Your task to perform on an android device: open app "Airtel Thanks" (install if not already installed) Image 0: 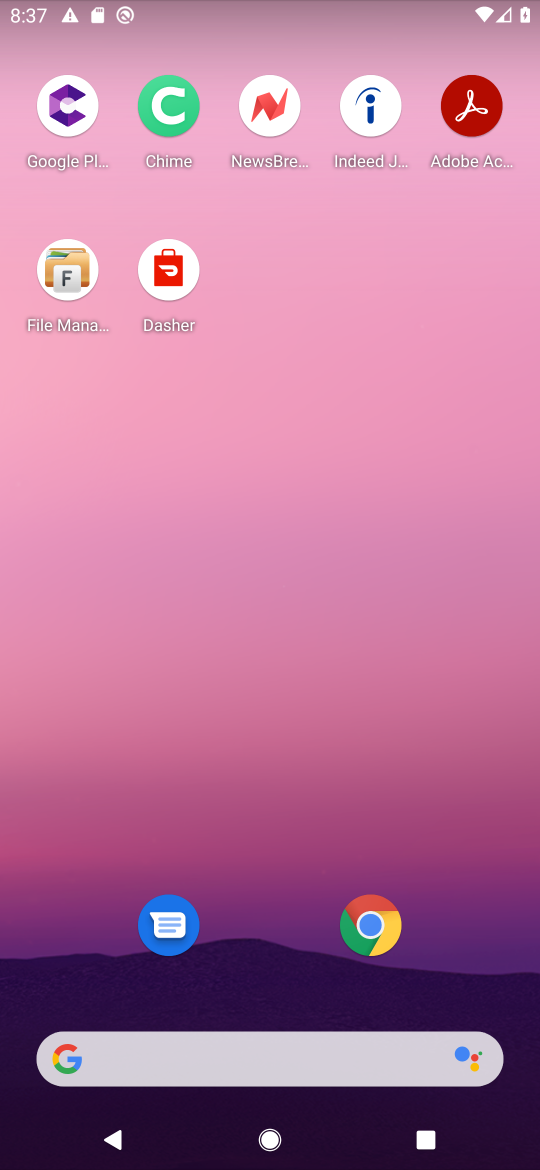
Step 0: drag from (260, 985) to (260, 192)
Your task to perform on an android device: open app "Airtel Thanks" (install if not already installed) Image 1: 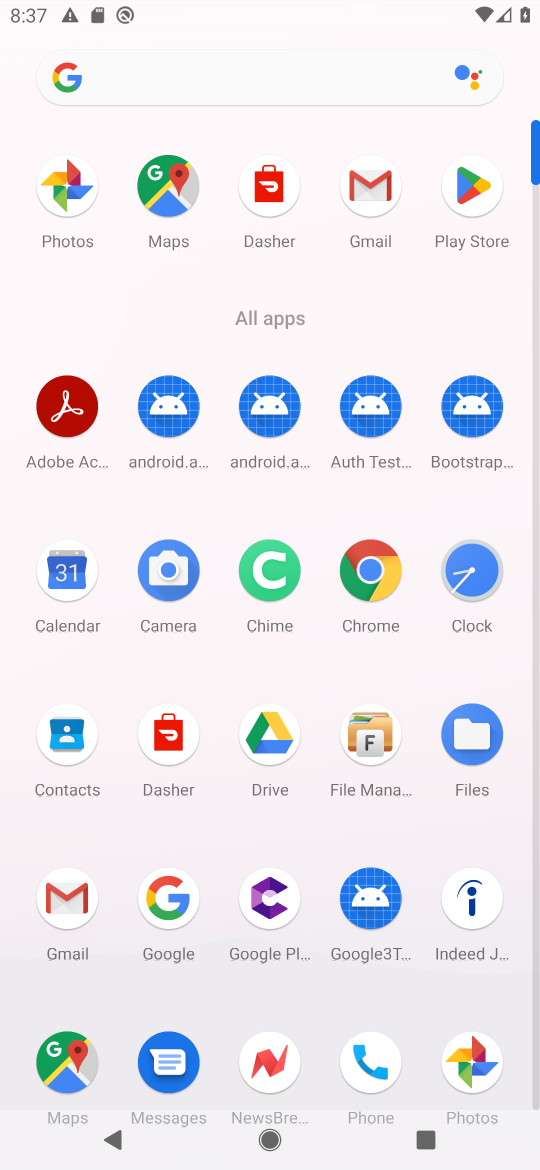
Step 1: click (478, 176)
Your task to perform on an android device: open app "Airtel Thanks" (install if not already installed) Image 2: 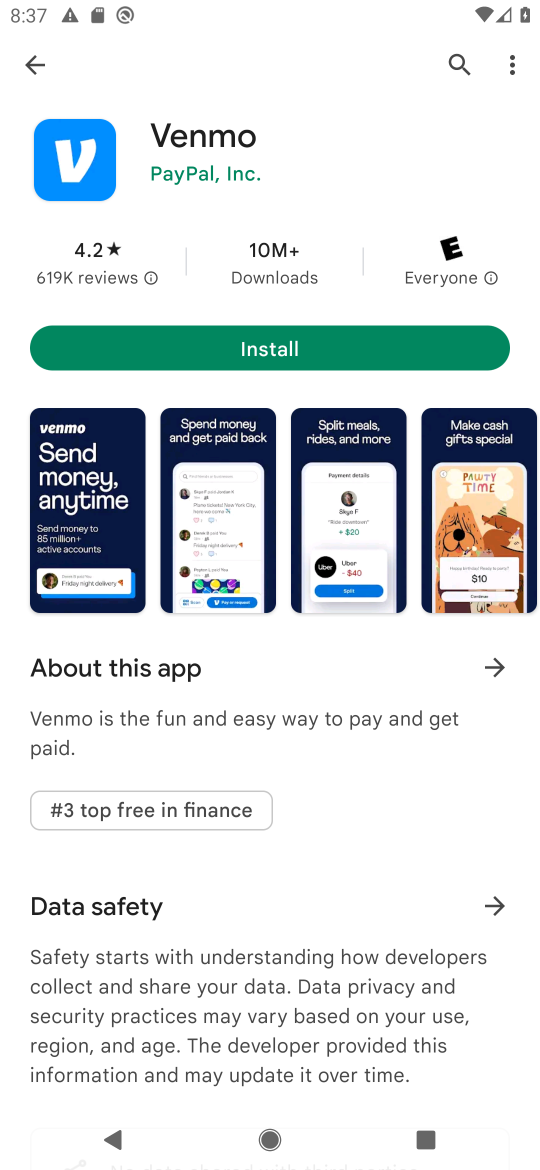
Step 2: click (456, 52)
Your task to perform on an android device: open app "Airtel Thanks" (install if not already installed) Image 3: 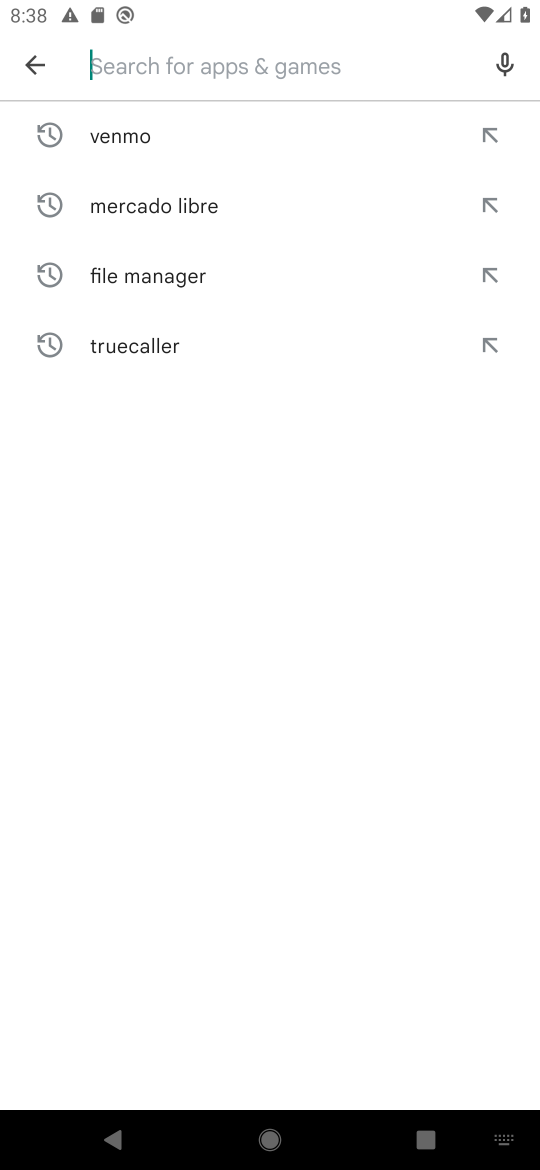
Step 3: type "airtel thanks"
Your task to perform on an android device: open app "Airtel Thanks" (install if not already installed) Image 4: 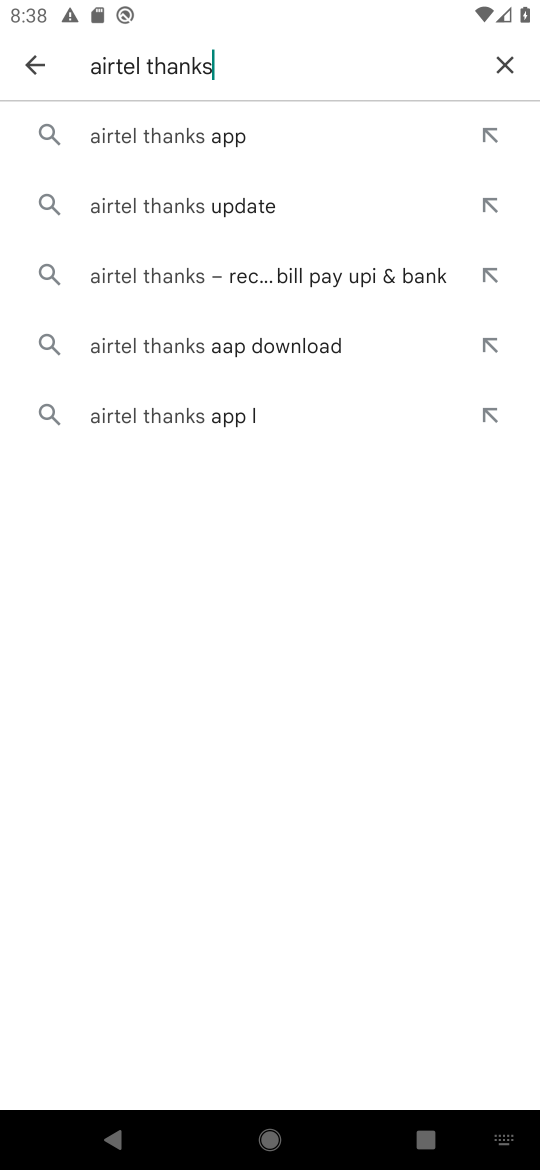
Step 4: click (152, 127)
Your task to perform on an android device: open app "Airtel Thanks" (install if not already installed) Image 5: 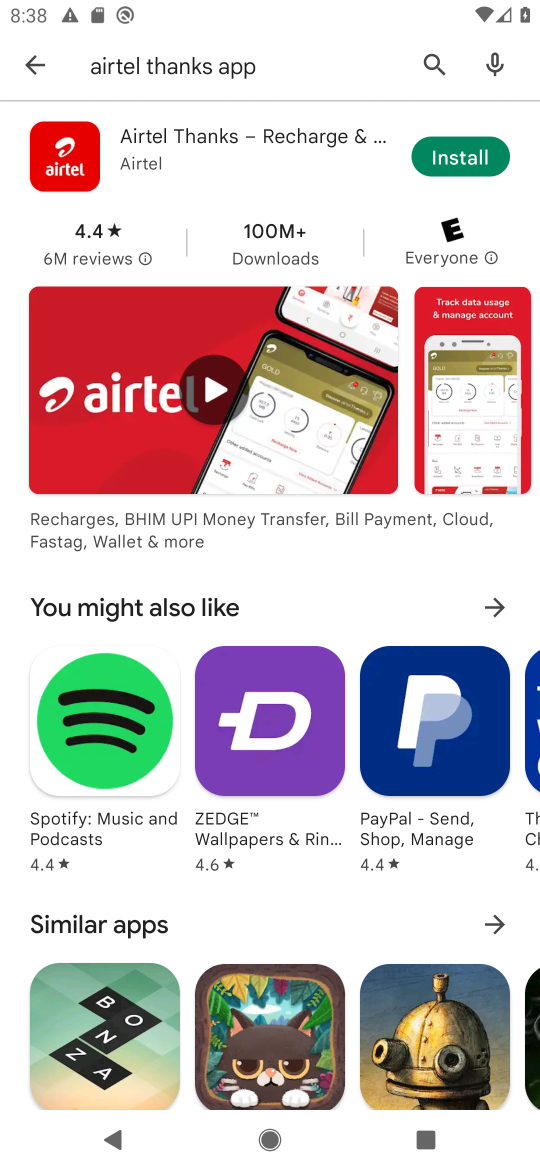
Step 5: click (243, 154)
Your task to perform on an android device: open app "Airtel Thanks" (install if not already installed) Image 6: 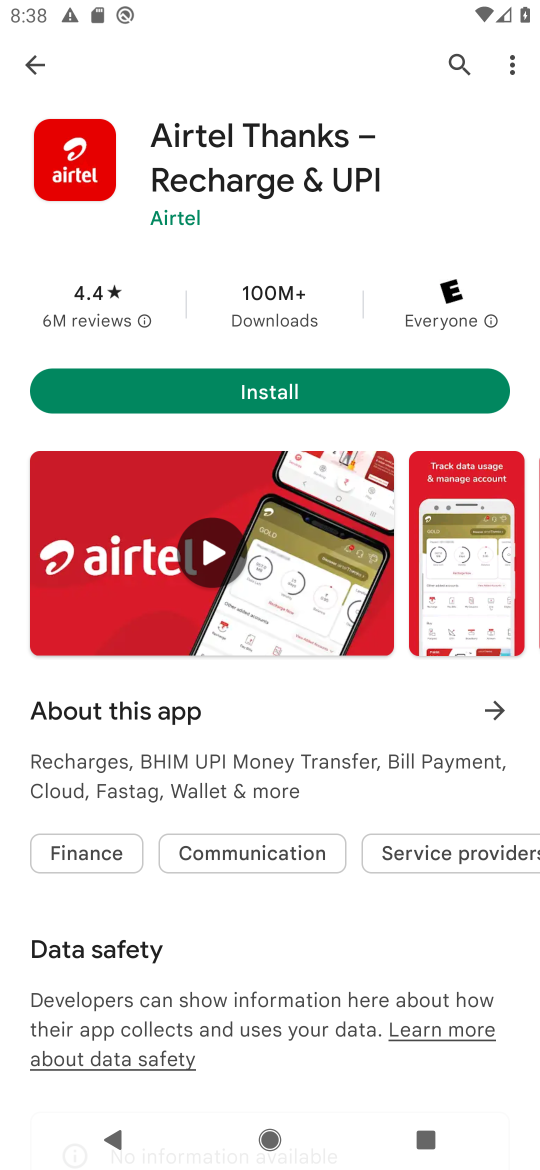
Step 6: click (264, 398)
Your task to perform on an android device: open app "Airtel Thanks" (install if not already installed) Image 7: 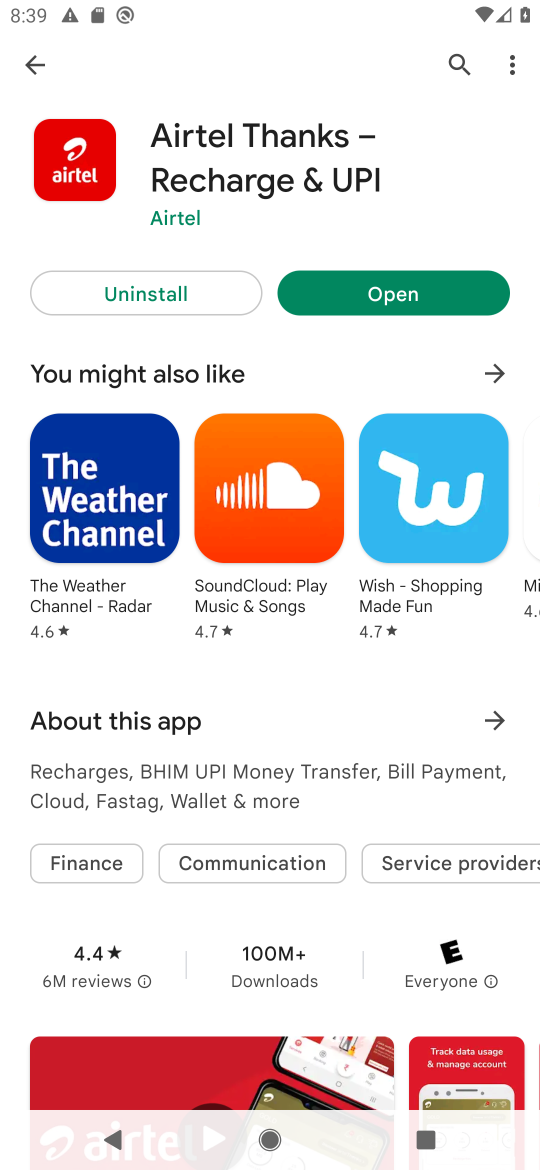
Step 7: click (345, 302)
Your task to perform on an android device: open app "Airtel Thanks" (install if not already installed) Image 8: 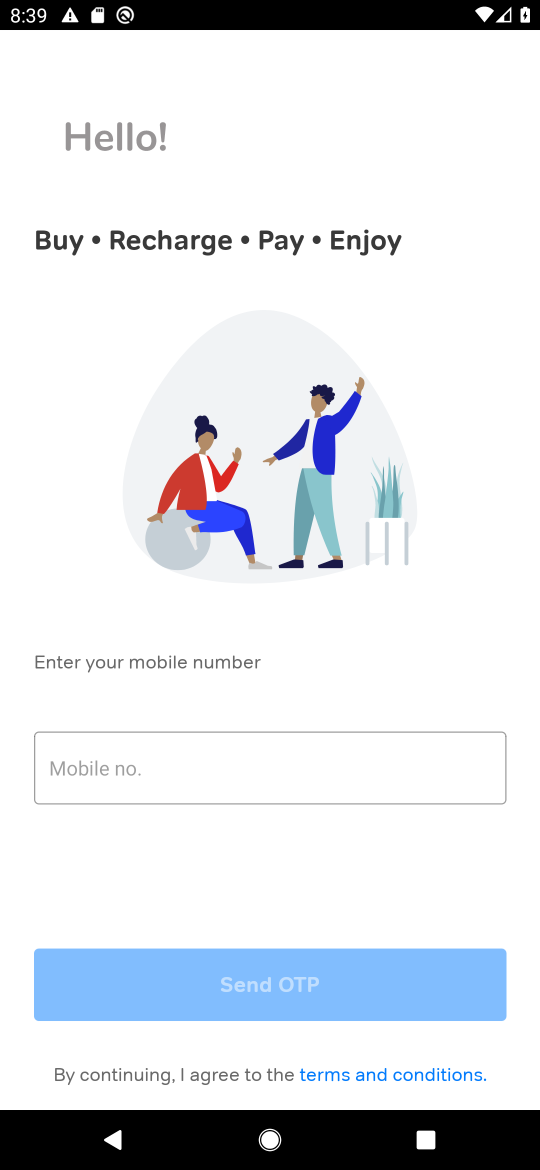
Step 8: task complete